Your task to perform on an android device: turn on javascript in the chrome app Image 0: 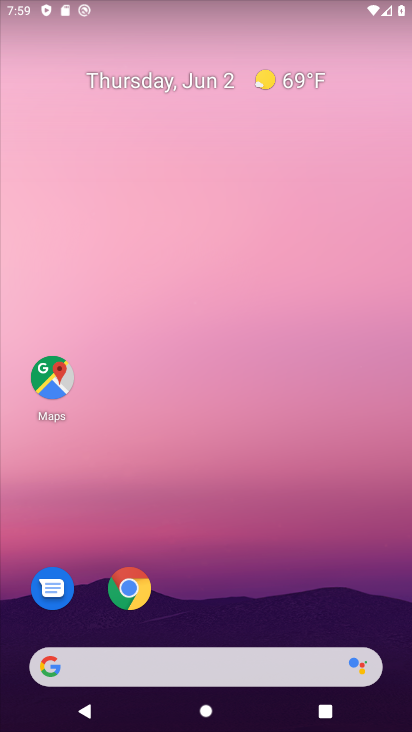
Step 0: click (127, 584)
Your task to perform on an android device: turn on javascript in the chrome app Image 1: 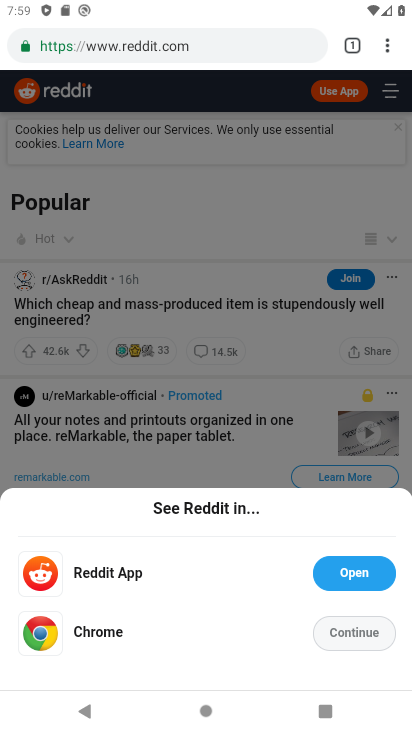
Step 1: click (389, 49)
Your task to perform on an android device: turn on javascript in the chrome app Image 2: 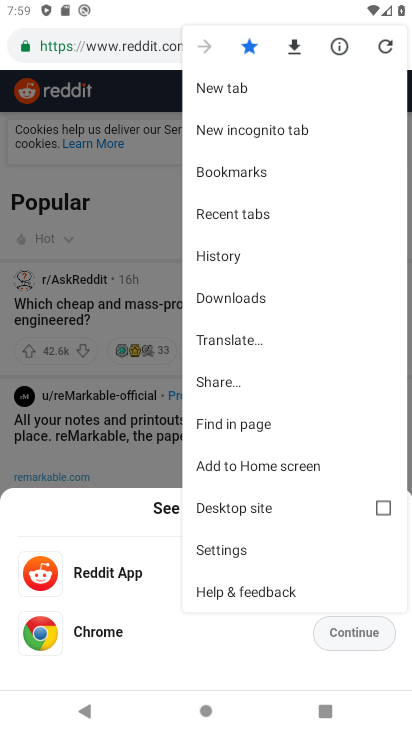
Step 2: click (227, 551)
Your task to perform on an android device: turn on javascript in the chrome app Image 3: 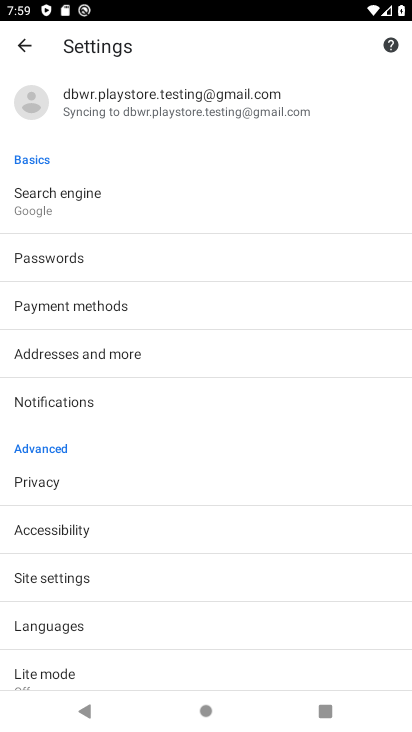
Step 3: click (69, 582)
Your task to perform on an android device: turn on javascript in the chrome app Image 4: 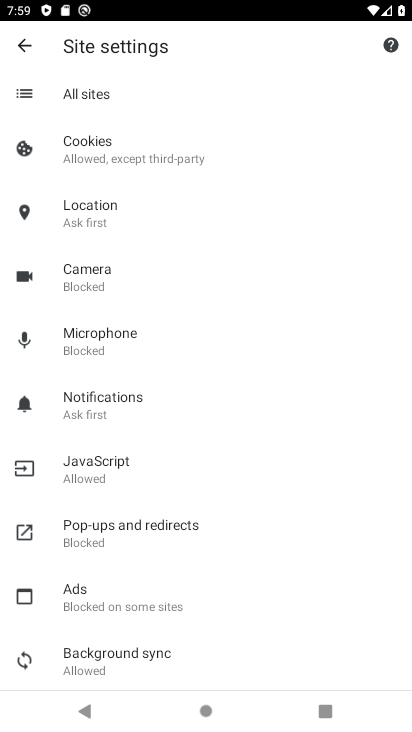
Step 4: click (84, 461)
Your task to perform on an android device: turn on javascript in the chrome app Image 5: 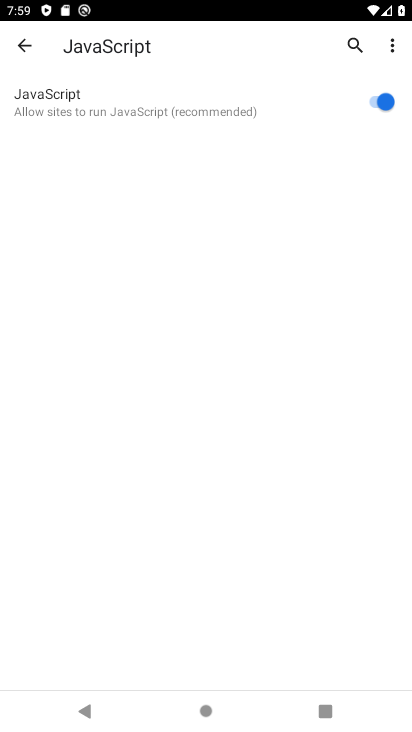
Step 5: task complete